Your task to perform on an android device: What's the weather going to be tomorrow? Image 0: 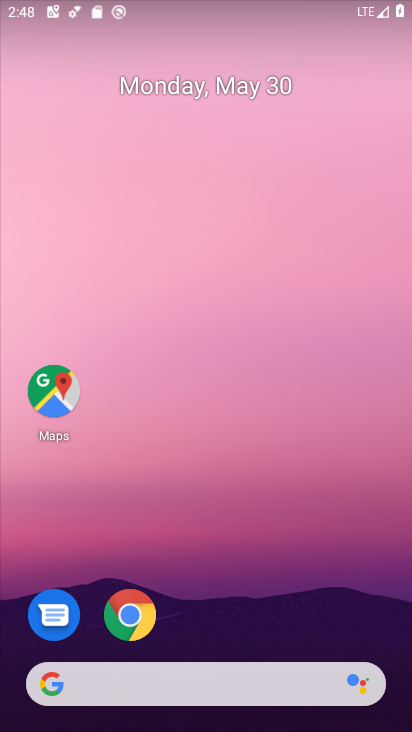
Step 0: click (203, 680)
Your task to perform on an android device: What's the weather going to be tomorrow? Image 1: 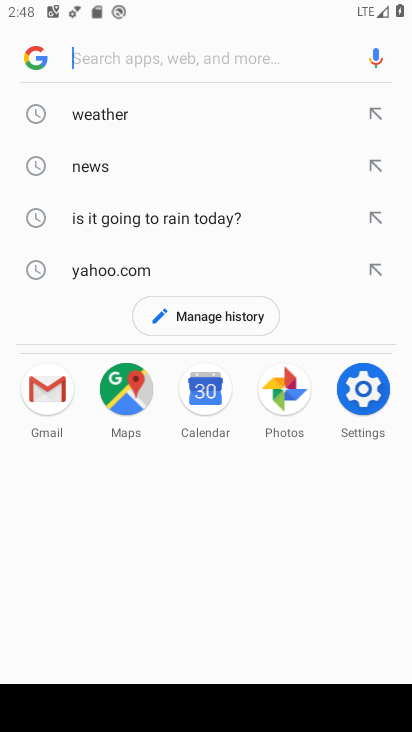
Step 1: click (118, 119)
Your task to perform on an android device: What's the weather going to be tomorrow? Image 2: 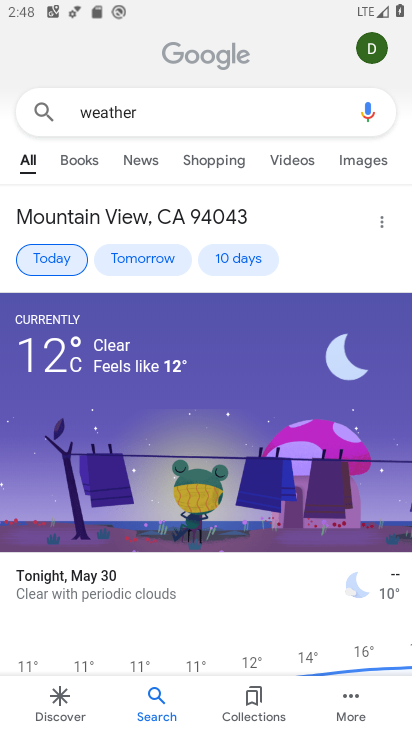
Step 2: click (62, 240)
Your task to perform on an android device: What's the weather going to be tomorrow? Image 3: 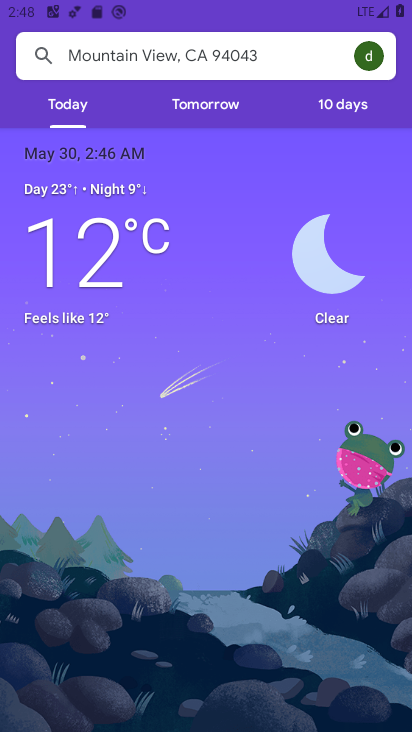
Step 3: click (218, 101)
Your task to perform on an android device: What's the weather going to be tomorrow? Image 4: 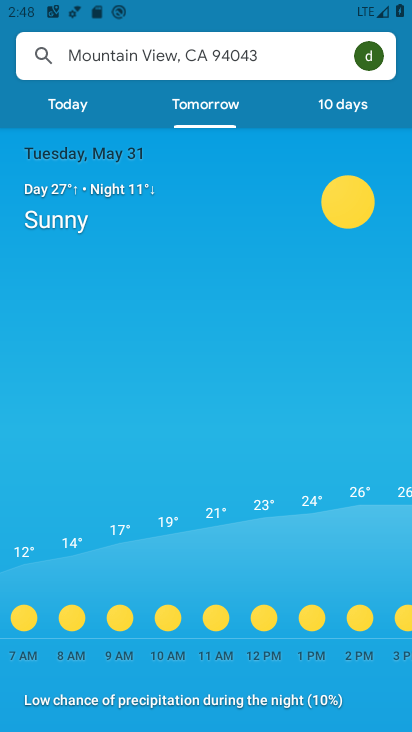
Step 4: task complete